Your task to perform on an android device: Check the weather Image 0: 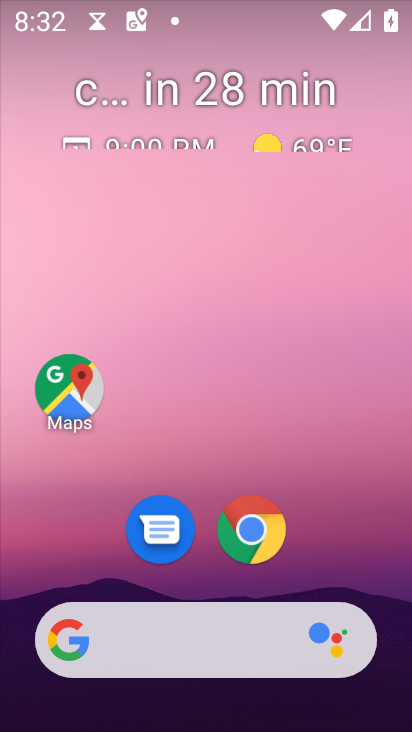
Step 0: click (187, 645)
Your task to perform on an android device: Check the weather Image 1: 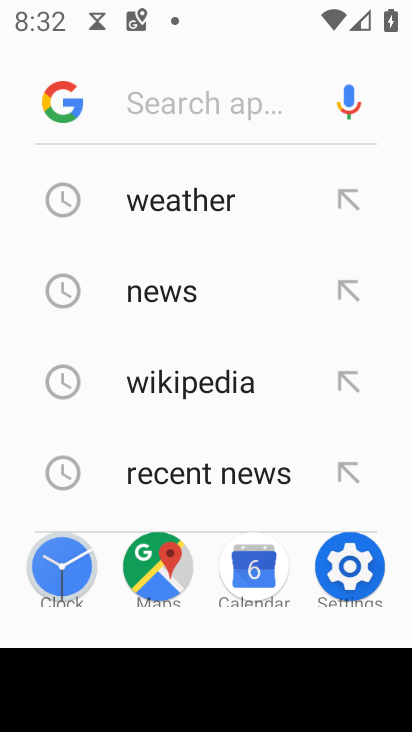
Step 1: click (176, 196)
Your task to perform on an android device: Check the weather Image 2: 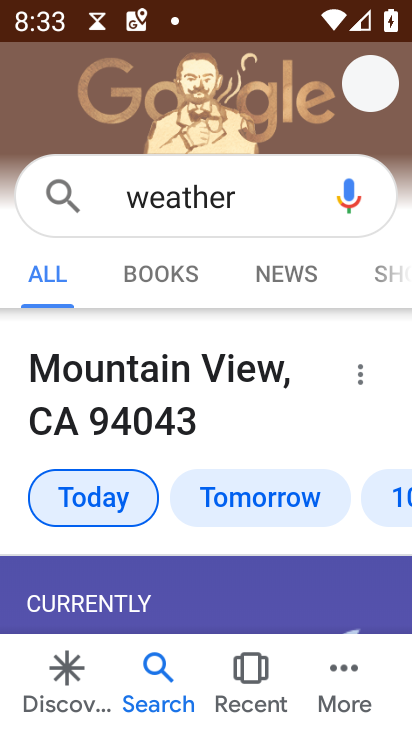
Step 2: task complete